Your task to perform on an android device: turn notification dots off Image 0: 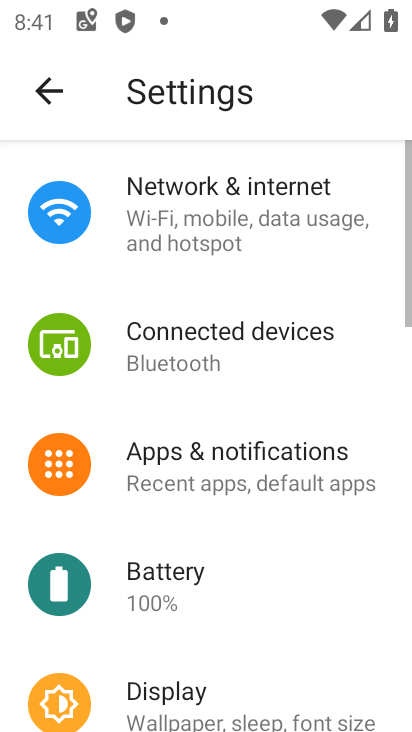
Step 0: click (254, 508)
Your task to perform on an android device: turn notification dots off Image 1: 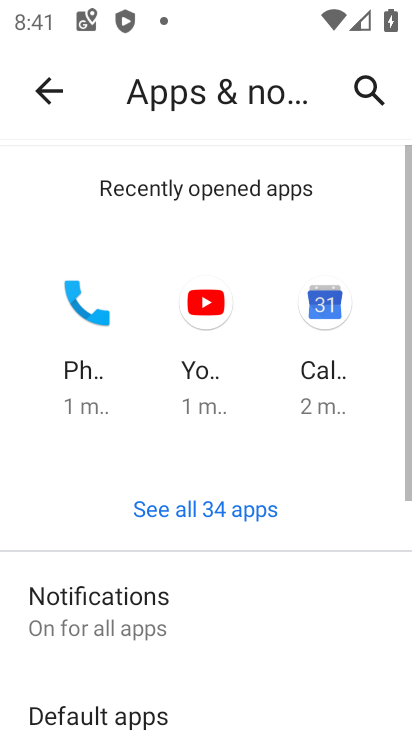
Step 1: click (181, 627)
Your task to perform on an android device: turn notification dots off Image 2: 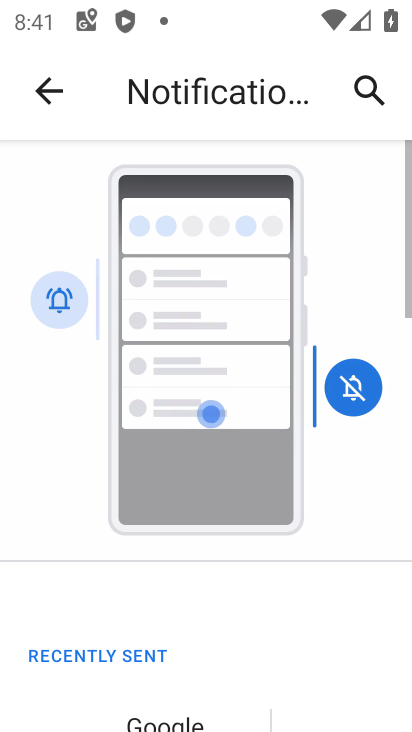
Step 2: drag from (238, 610) to (295, 124)
Your task to perform on an android device: turn notification dots off Image 3: 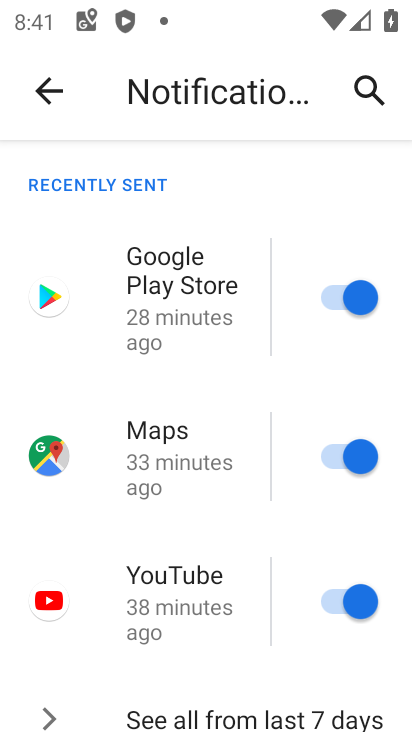
Step 3: drag from (248, 654) to (271, 196)
Your task to perform on an android device: turn notification dots off Image 4: 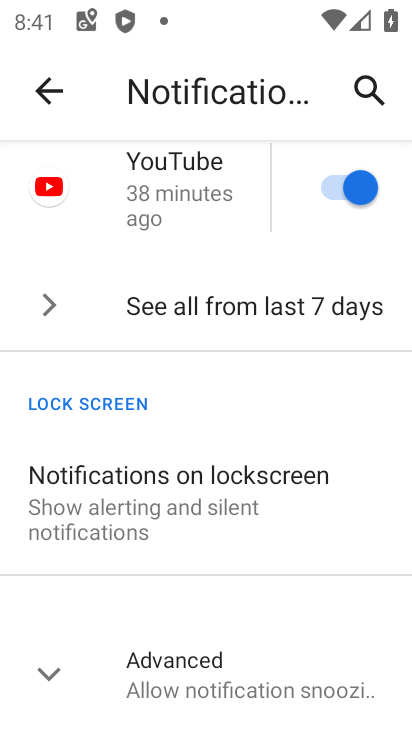
Step 4: drag from (178, 577) to (205, 222)
Your task to perform on an android device: turn notification dots off Image 5: 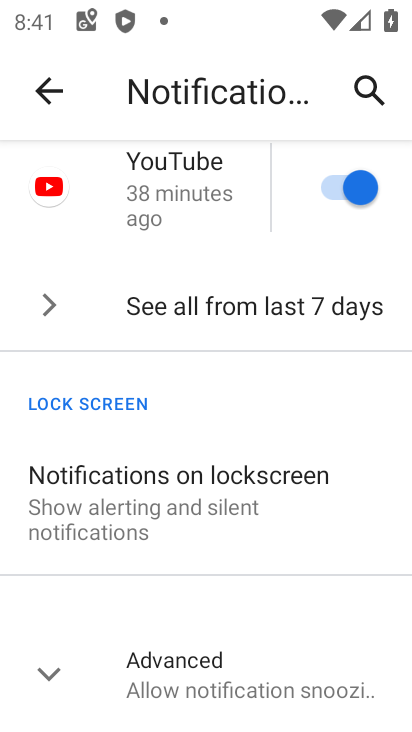
Step 5: click (212, 638)
Your task to perform on an android device: turn notification dots off Image 6: 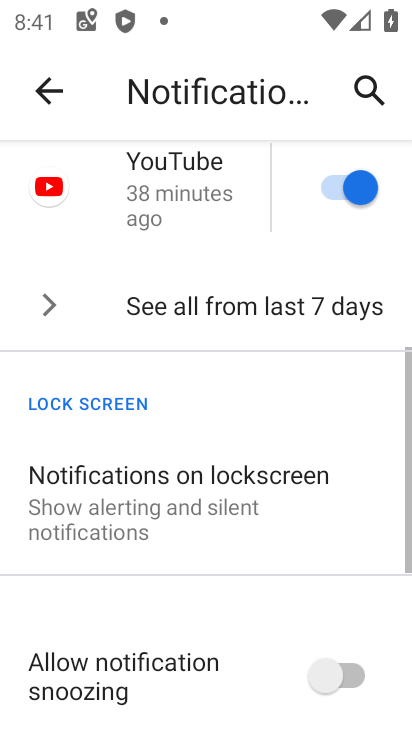
Step 6: drag from (209, 634) to (264, 266)
Your task to perform on an android device: turn notification dots off Image 7: 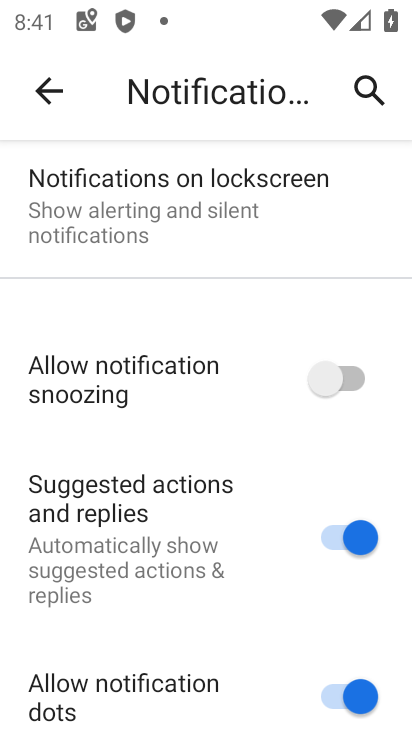
Step 7: drag from (303, 613) to (300, 243)
Your task to perform on an android device: turn notification dots off Image 8: 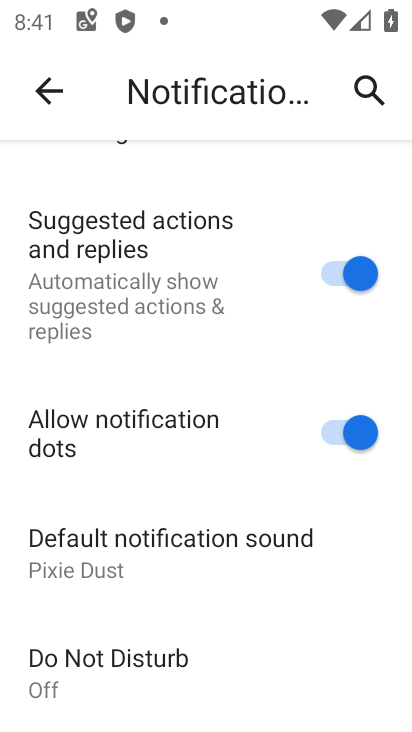
Step 8: click (369, 456)
Your task to perform on an android device: turn notification dots off Image 9: 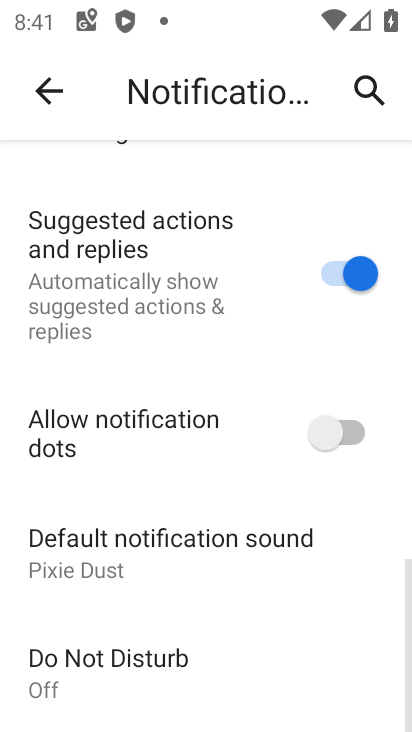
Step 9: task complete